Your task to perform on an android device: Go to location settings Image 0: 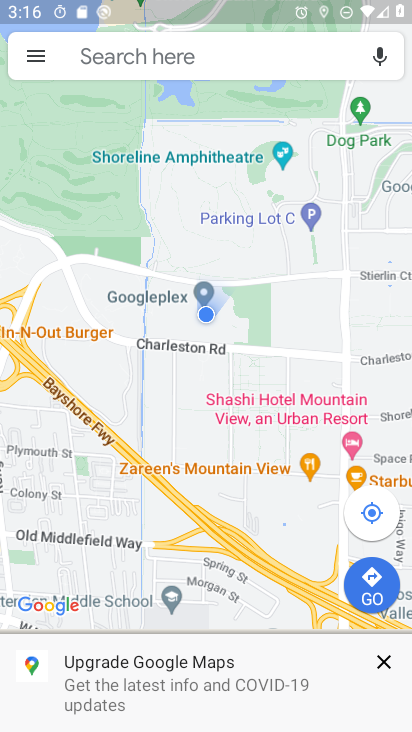
Step 0: press home button
Your task to perform on an android device: Go to location settings Image 1: 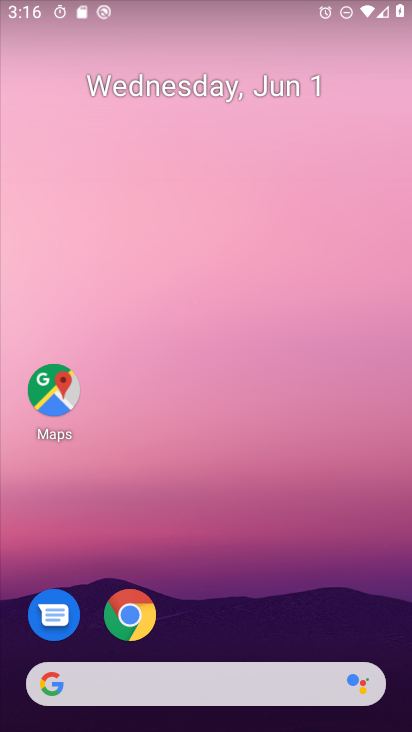
Step 1: drag from (252, 640) to (302, 5)
Your task to perform on an android device: Go to location settings Image 2: 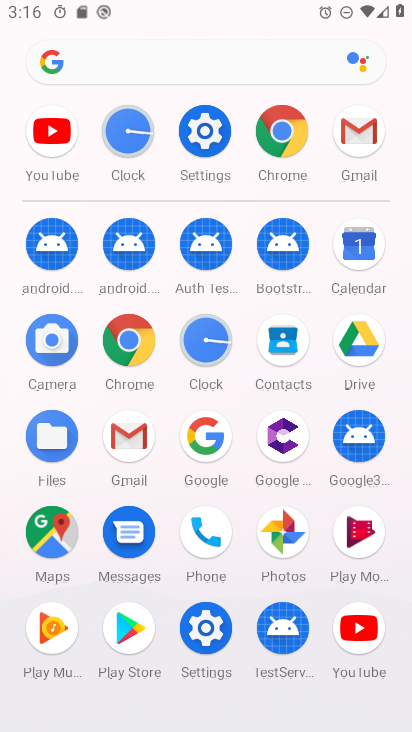
Step 2: click (209, 126)
Your task to perform on an android device: Go to location settings Image 3: 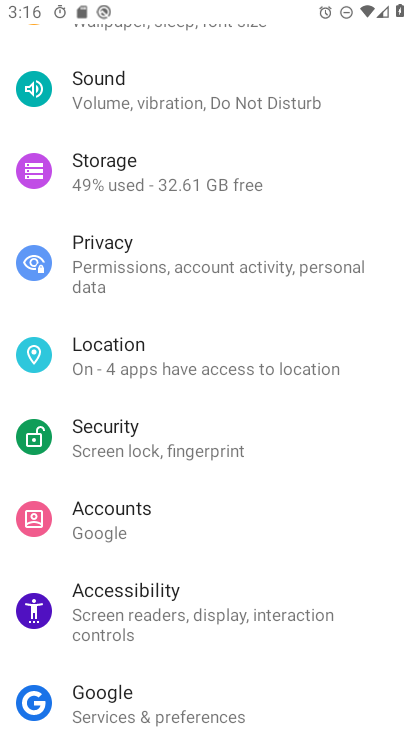
Step 3: click (161, 368)
Your task to perform on an android device: Go to location settings Image 4: 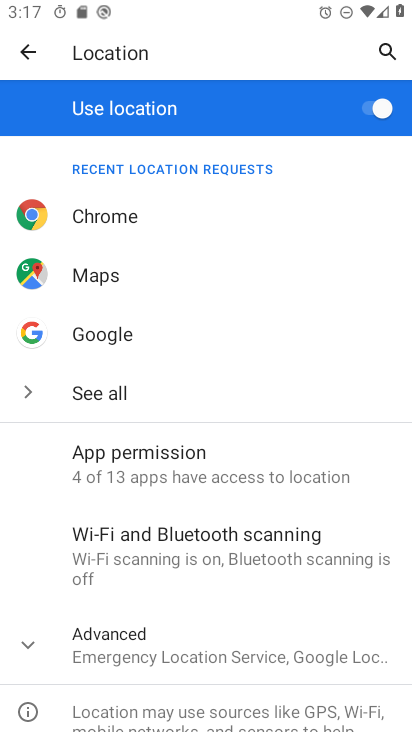
Step 4: task complete